Your task to perform on an android device: Open a new Chrome private window Image 0: 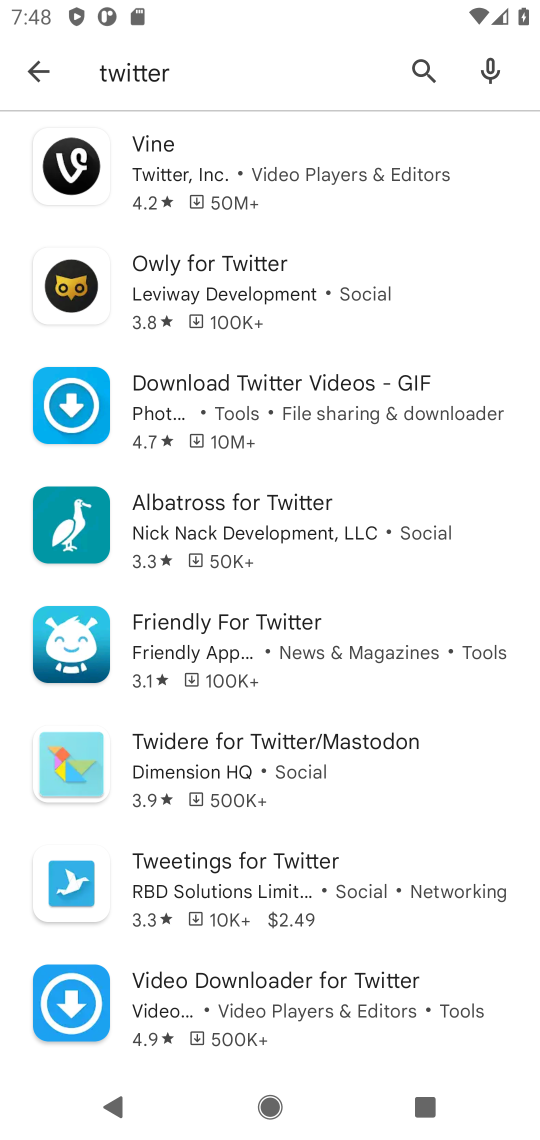
Step 0: press home button
Your task to perform on an android device: Open a new Chrome private window Image 1: 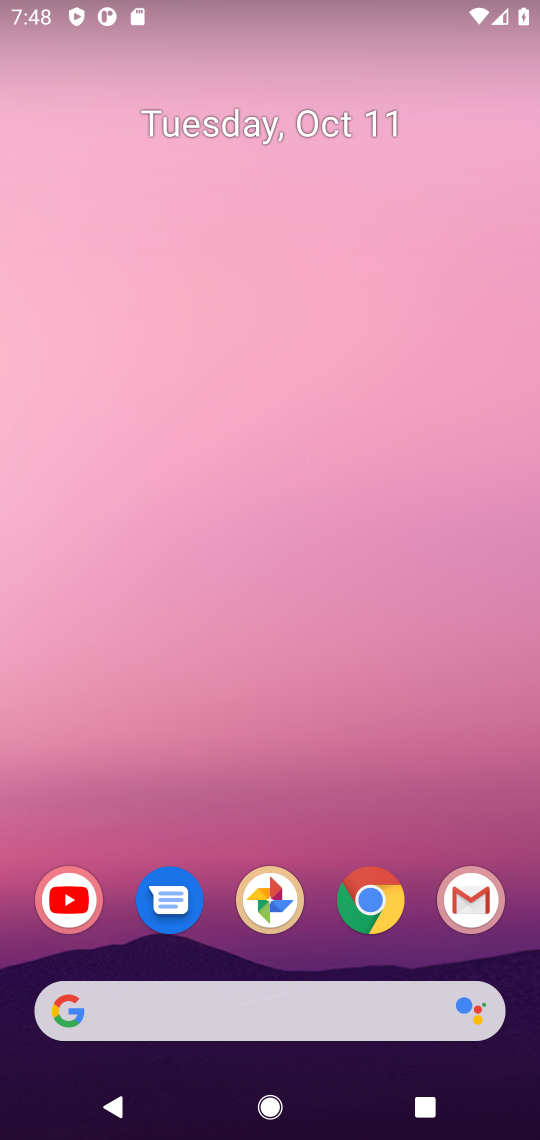
Step 1: click (369, 890)
Your task to perform on an android device: Open a new Chrome private window Image 2: 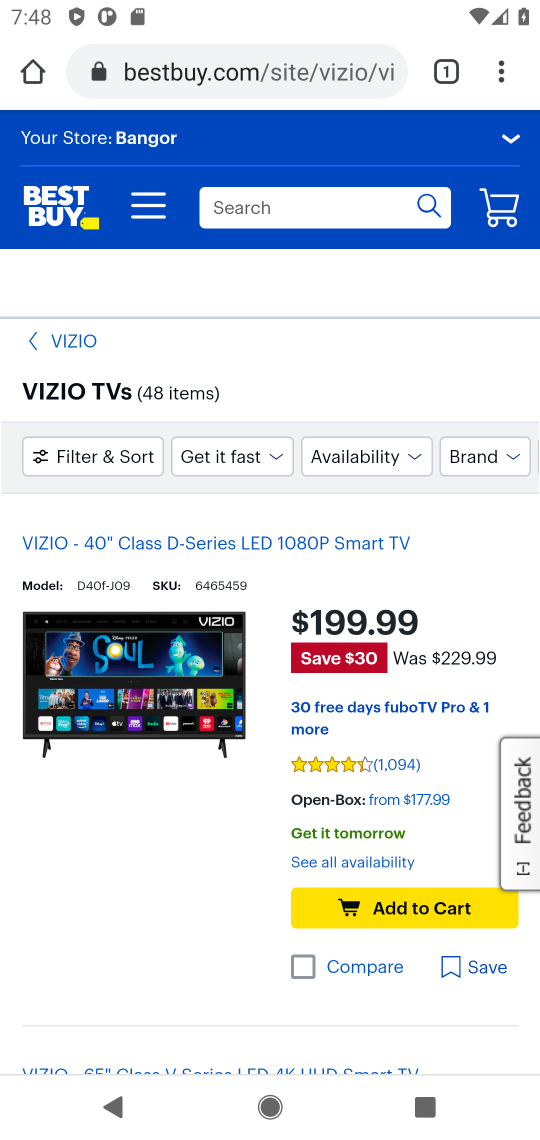
Step 2: click (497, 87)
Your task to perform on an android device: Open a new Chrome private window Image 3: 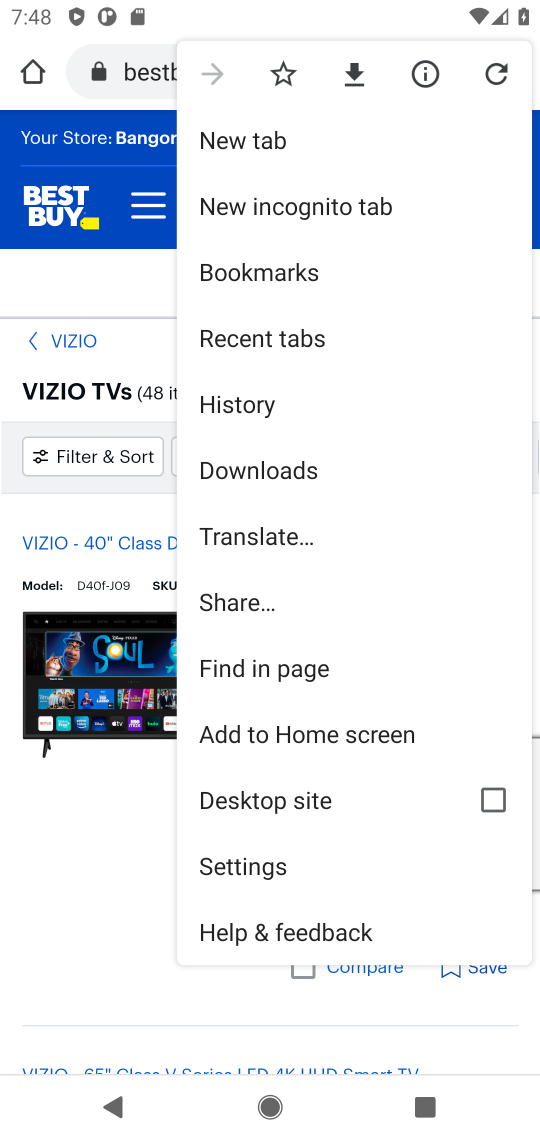
Step 3: click (316, 207)
Your task to perform on an android device: Open a new Chrome private window Image 4: 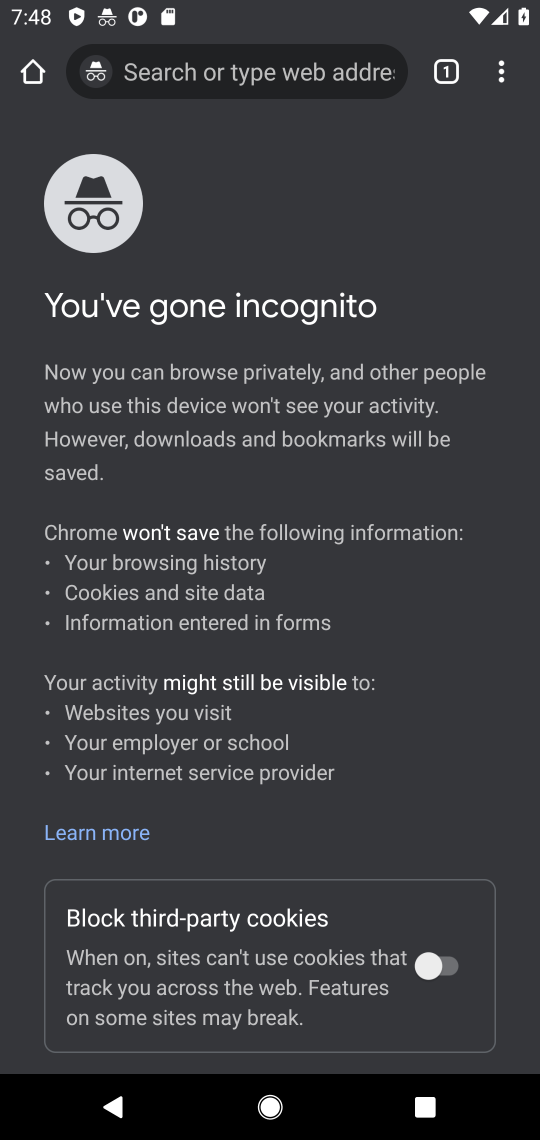
Step 4: task complete